Your task to perform on an android device: turn smart compose on in the gmail app Image 0: 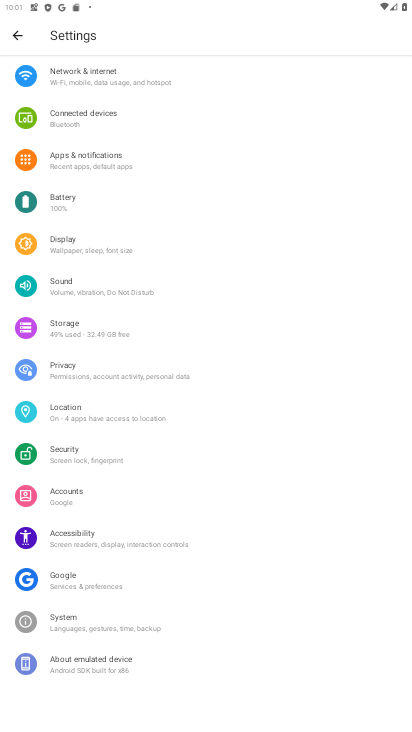
Step 0: press home button
Your task to perform on an android device: turn smart compose on in the gmail app Image 1: 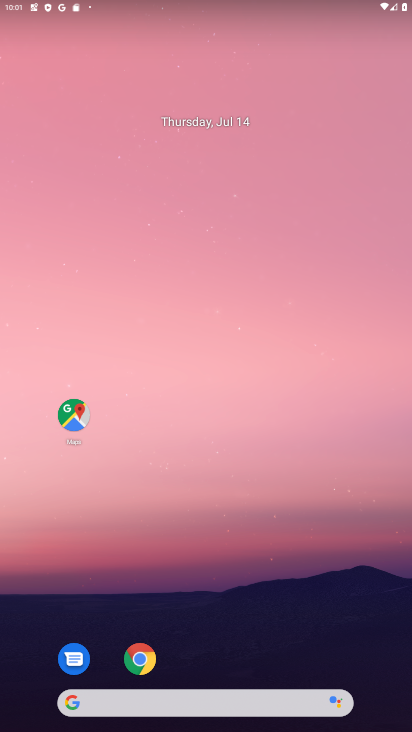
Step 1: drag from (309, 603) to (225, 146)
Your task to perform on an android device: turn smart compose on in the gmail app Image 2: 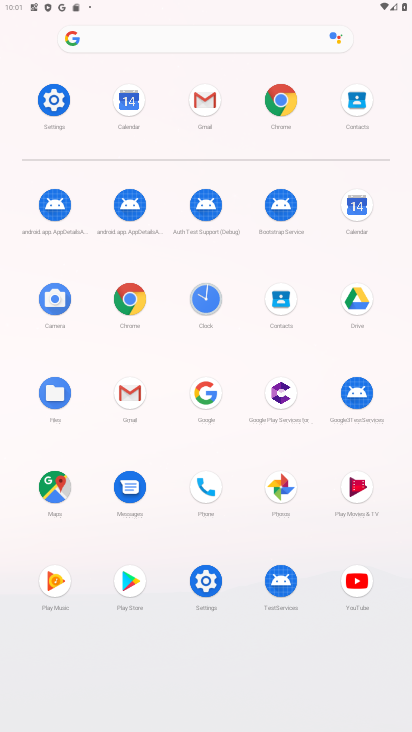
Step 2: click (205, 95)
Your task to perform on an android device: turn smart compose on in the gmail app Image 3: 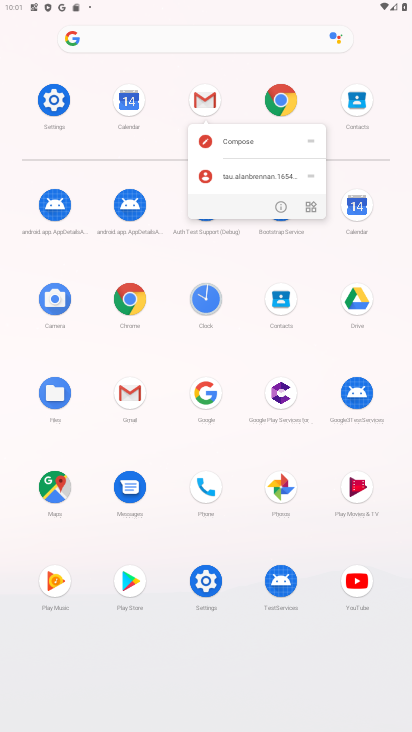
Step 3: click (205, 95)
Your task to perform on an android device: turn smart compose on in the gmail app Image 4: 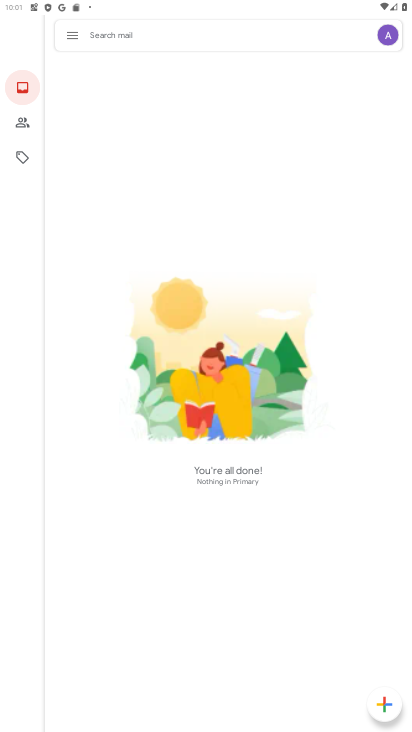
Step 4: click (74, 36)
Your task to perform on an android device: turn smart compose on in the gmail app Image 5: 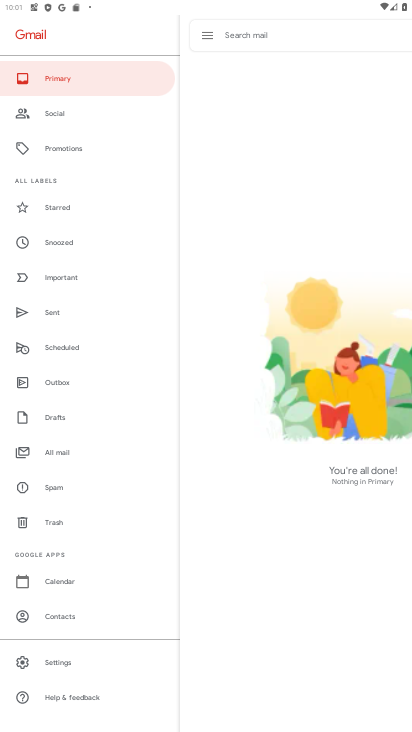
Step 5: click (78, 668)
Your task to perform on an android device: turn smart compose on in the gmail app Image 6: 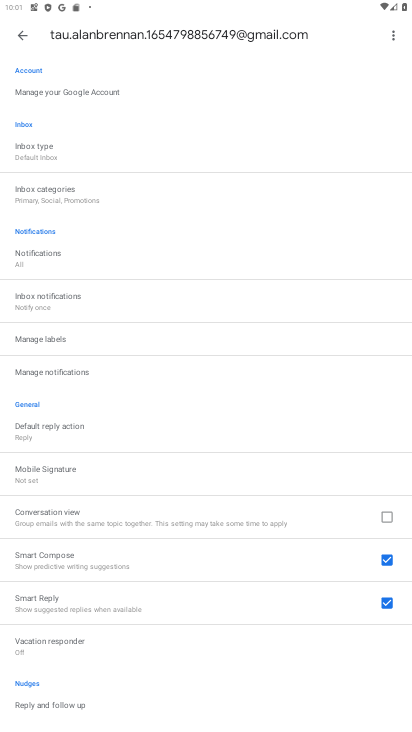
Step 6: task complete